Your task to perform on an android device: snooze an email in the gmail app Image 0: 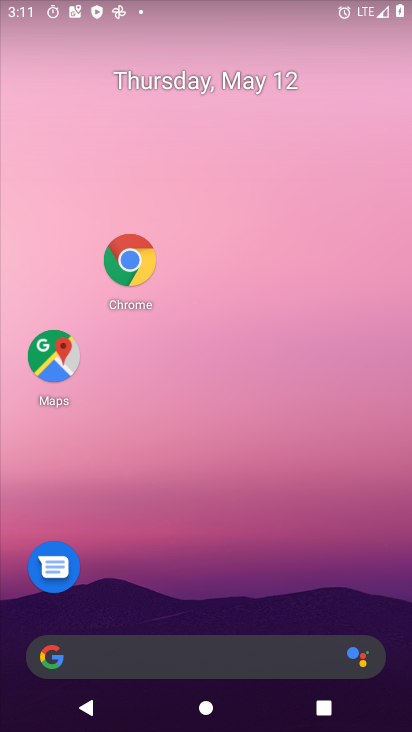
Step 0: drag from (193, 643) to (280, 160)
Your task to perform on an android device: snooze an email in the gmail app Image 1: 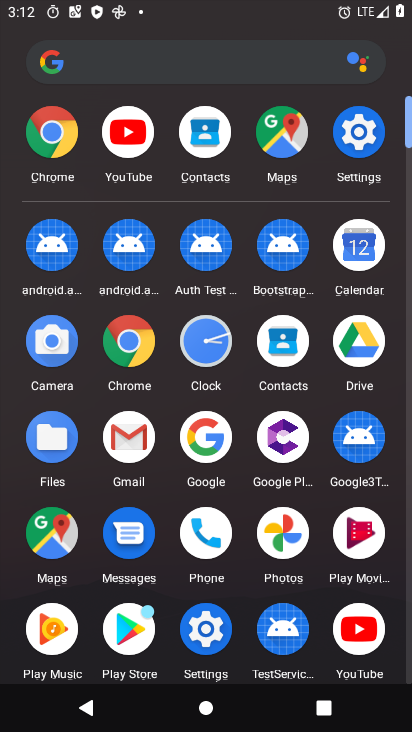
Step 1: click (120, 436)
Your task to perform on an android device: snooze an email in the gmail app Image 2: 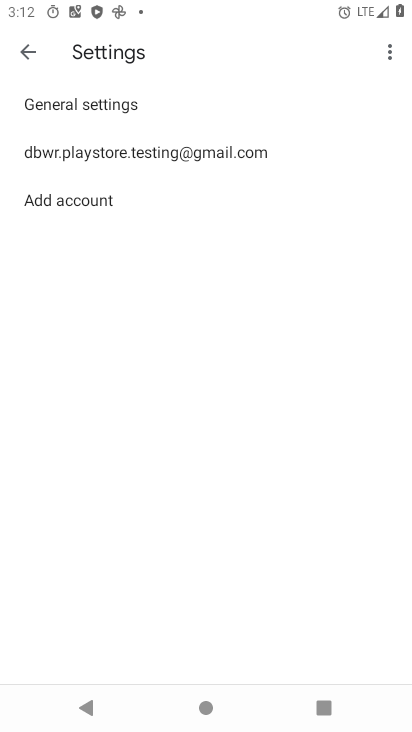
Step 2: click (23, 53)
Your task to perform on an android device: snooze an email in the gmail app Image 3: 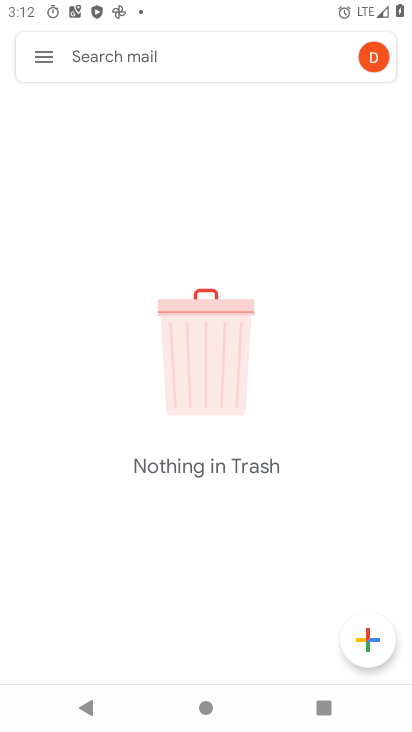
Step 3: click (44, 58)
Your task to perform on an android device: snooze an email in the gmail app Image 4: 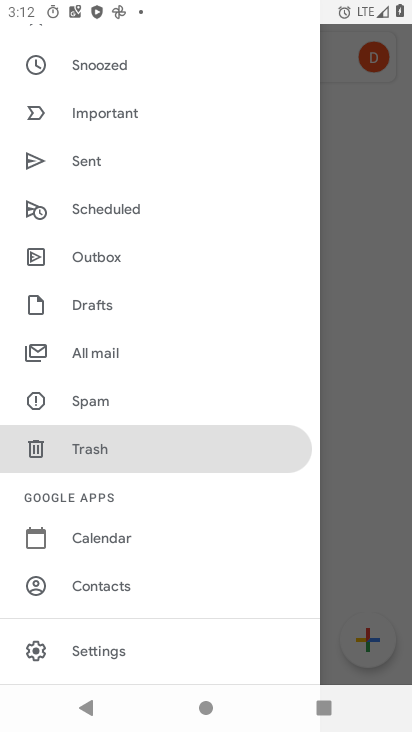
Step 4: click (111, 65)
Your task to perform on an android device: snooze an email in the gmail app Image 5: 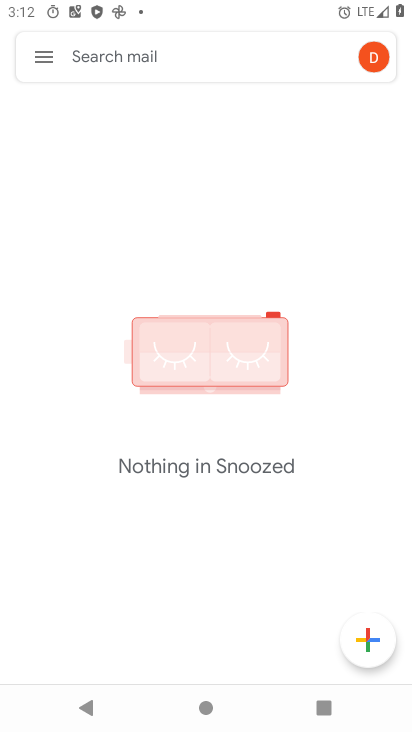
Step 5: task complete